Your task to perform on an android device: Go to Reddit.com Image 0: 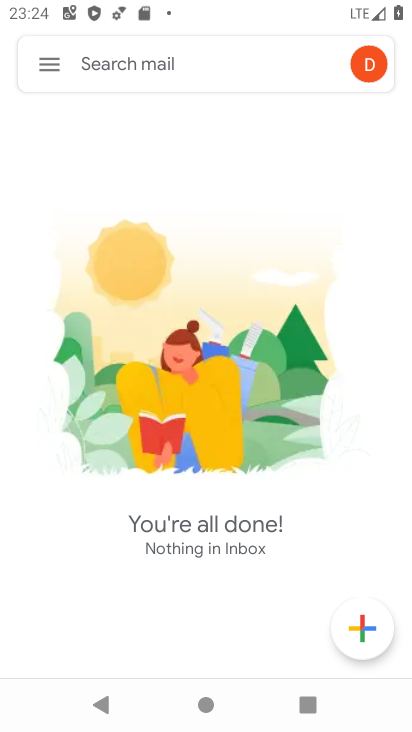
Step 0: drag from (184, 499) to (248, 100)
Your task to perform on an android device: Go to Reddit.com Image 1: 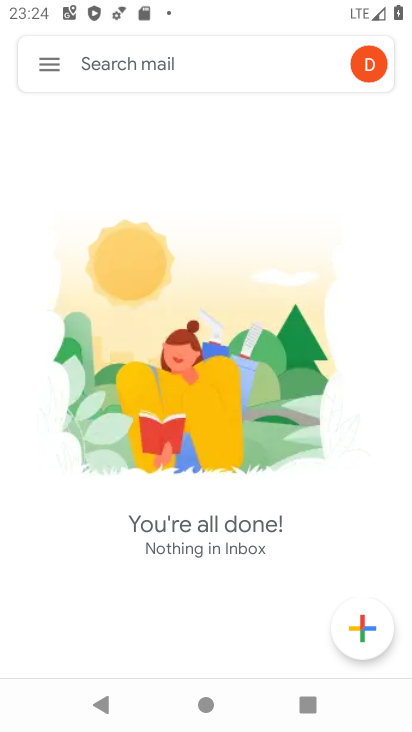
Step 1: press home button
Your task to perform on an android device: Go to Reddit.com Image 2: 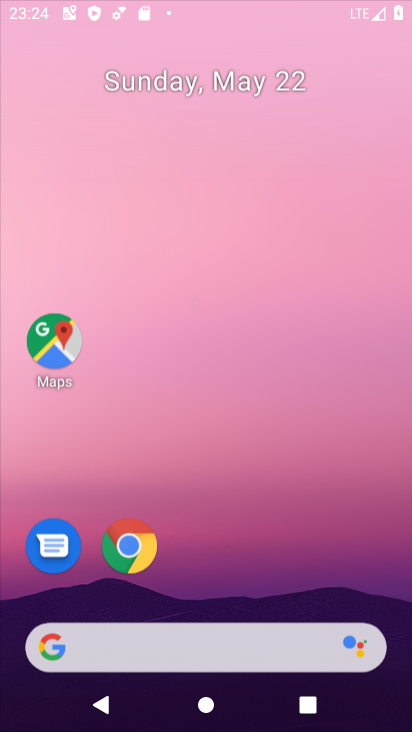
Step 2: drag from (192, 577) to (236, 167)
Your task to perform on an android device: Go to Reddit.com Image 3: 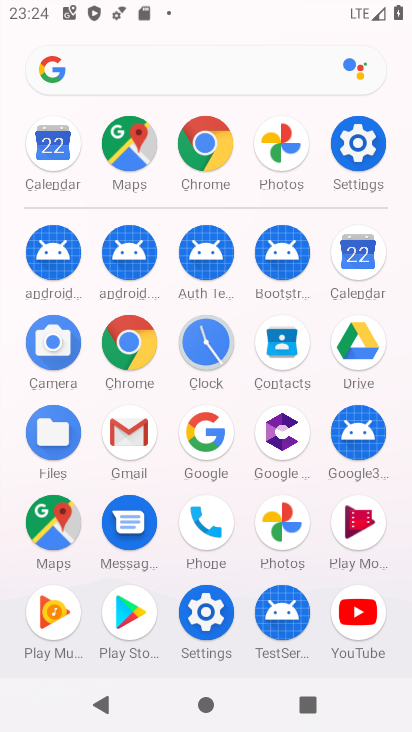
Step 3: click (172, 68)
Your task to perform on an android device: Go to Reddit.com Image 4: 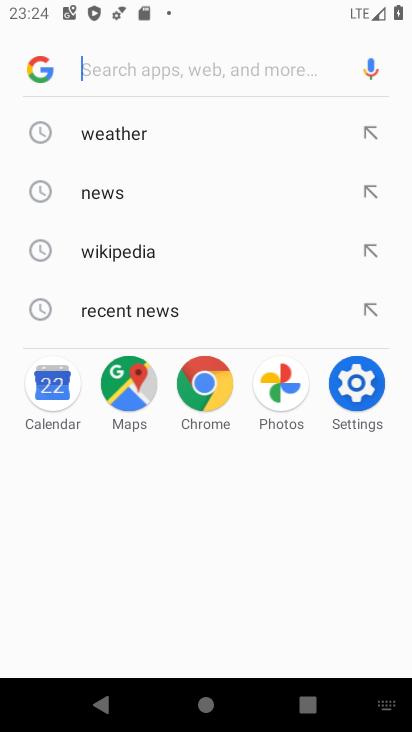
Step 4: type "reddit.com"
Your task to perform on an android device: Go to Reddit.com Image 5: 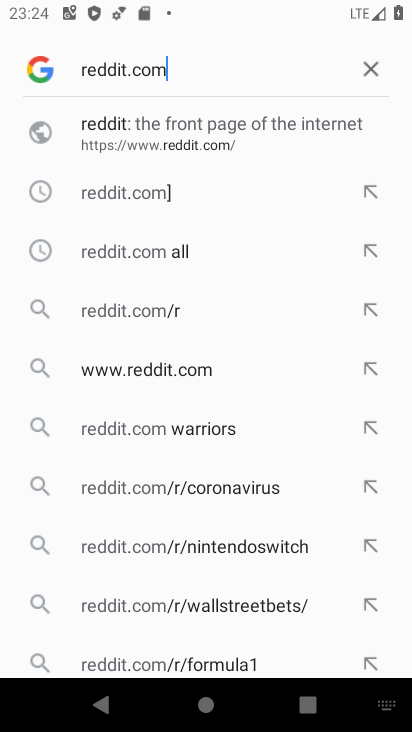
Step 5: click (128, 125)
Your task to perform on an android device: Go to Reddit.com Image 6: 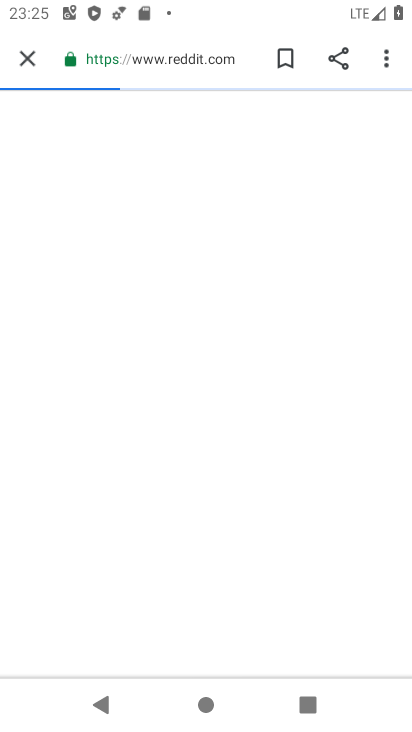
Step 6: task complete